Your task to perform on an android device: What is the recent news? Image 0: 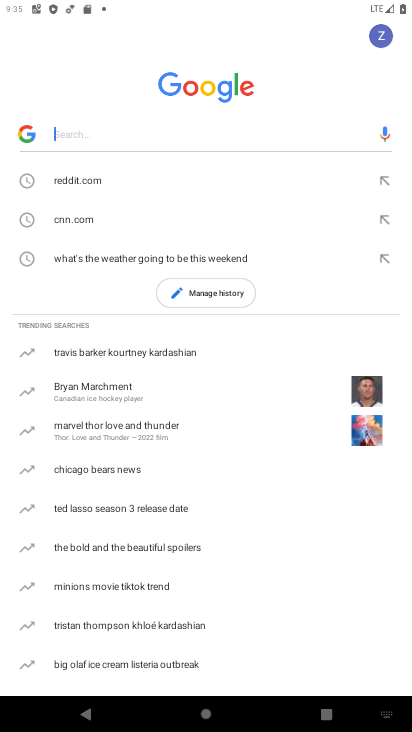
Step 0: press home button
Your task to perform on an android device: What is the recent news? Image 1: 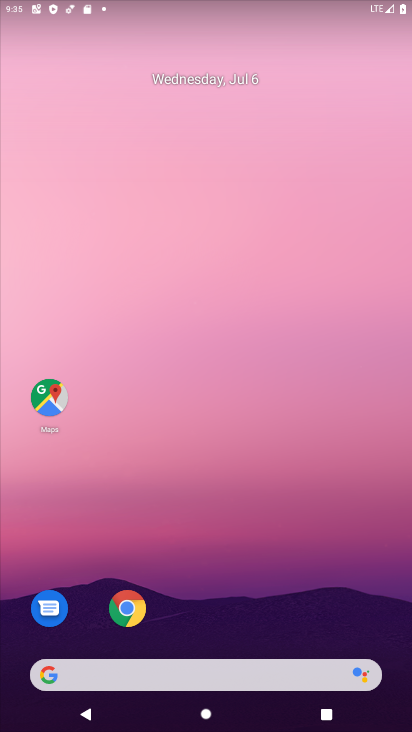
Step 1: task complete